Your task to perform on an android device: move a message to another label in the gmail app Image 0: 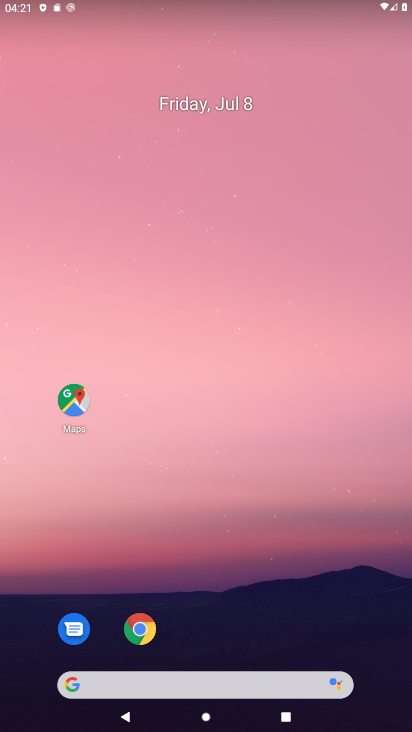
Step 0: drag from (217, 723) to (157, 67)
Your task to perform on an android device: move a message to another label in the gmail app Image 1: 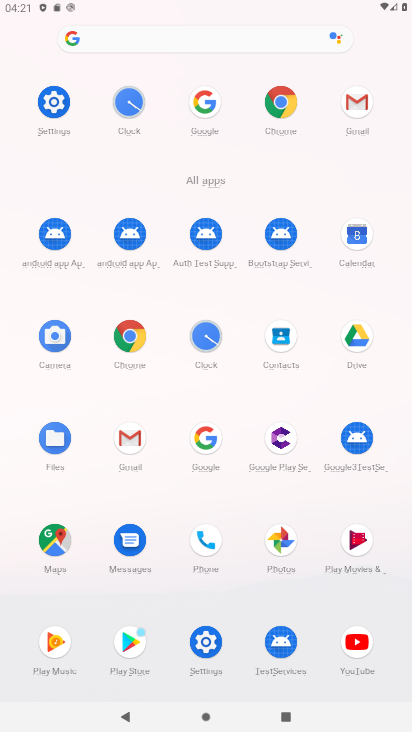
Step 1: click (125, 435)
Your task to perform on an android device: move a message to another label in the gmail app Image 2: 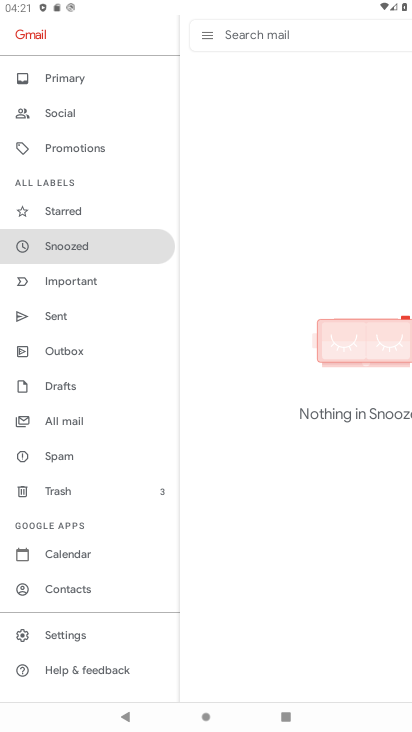
Step 2: drag from (59, 96) to (65, 395)
Your task to perform on an android device: move a message to another label in the gmail app Image 3: 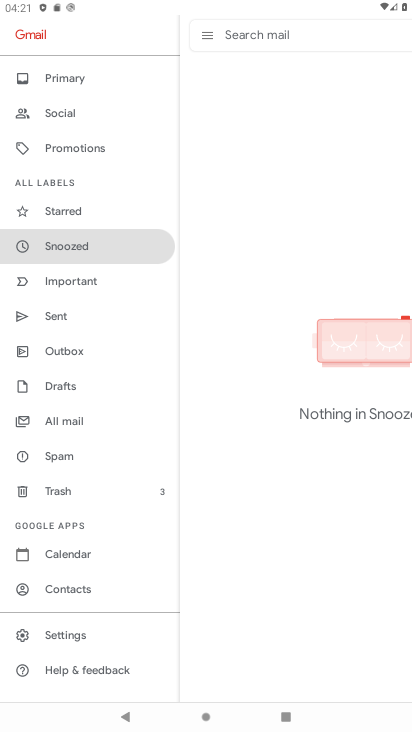
Step 3: click (73, 78)
Your task to perform on an android device: move a message to another label in the gmail app Image 4: 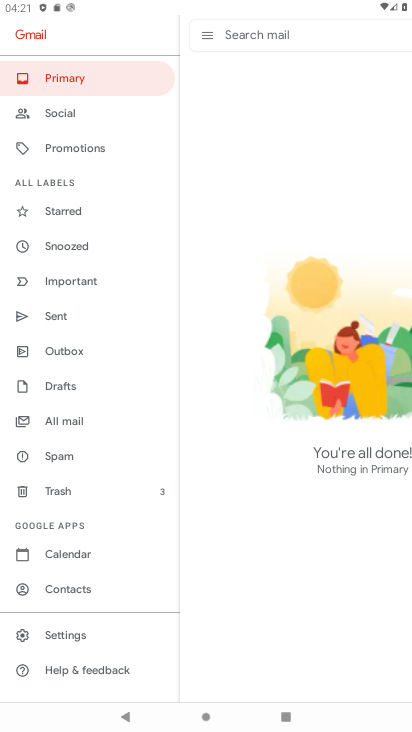
Step 4: task complete